Your task to perform on an android device: Open the calendar and show me this week's events? Image 0: 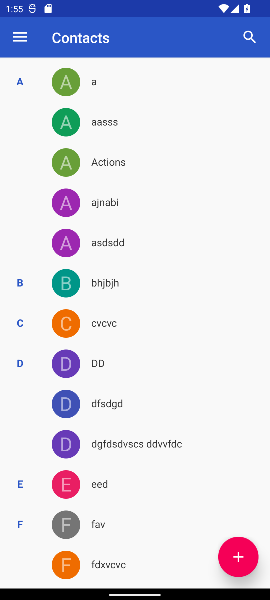
Step 0: task complete